Your task to perform on an android device: Go to display settings Image 0: 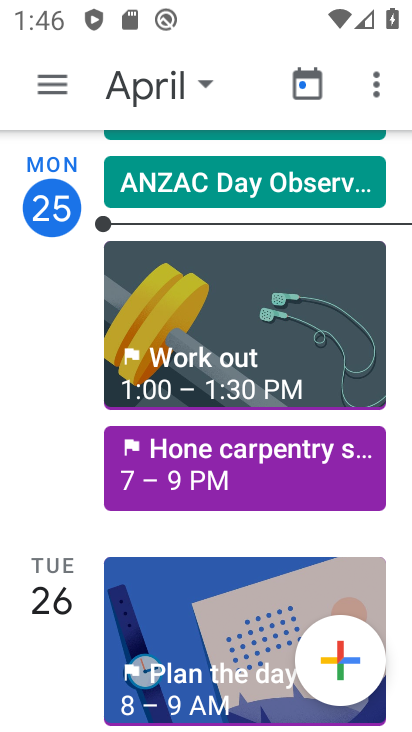
Step 0: task impossible